Your task to perform on an android device: toggle javascript in the chrome app Image 0: 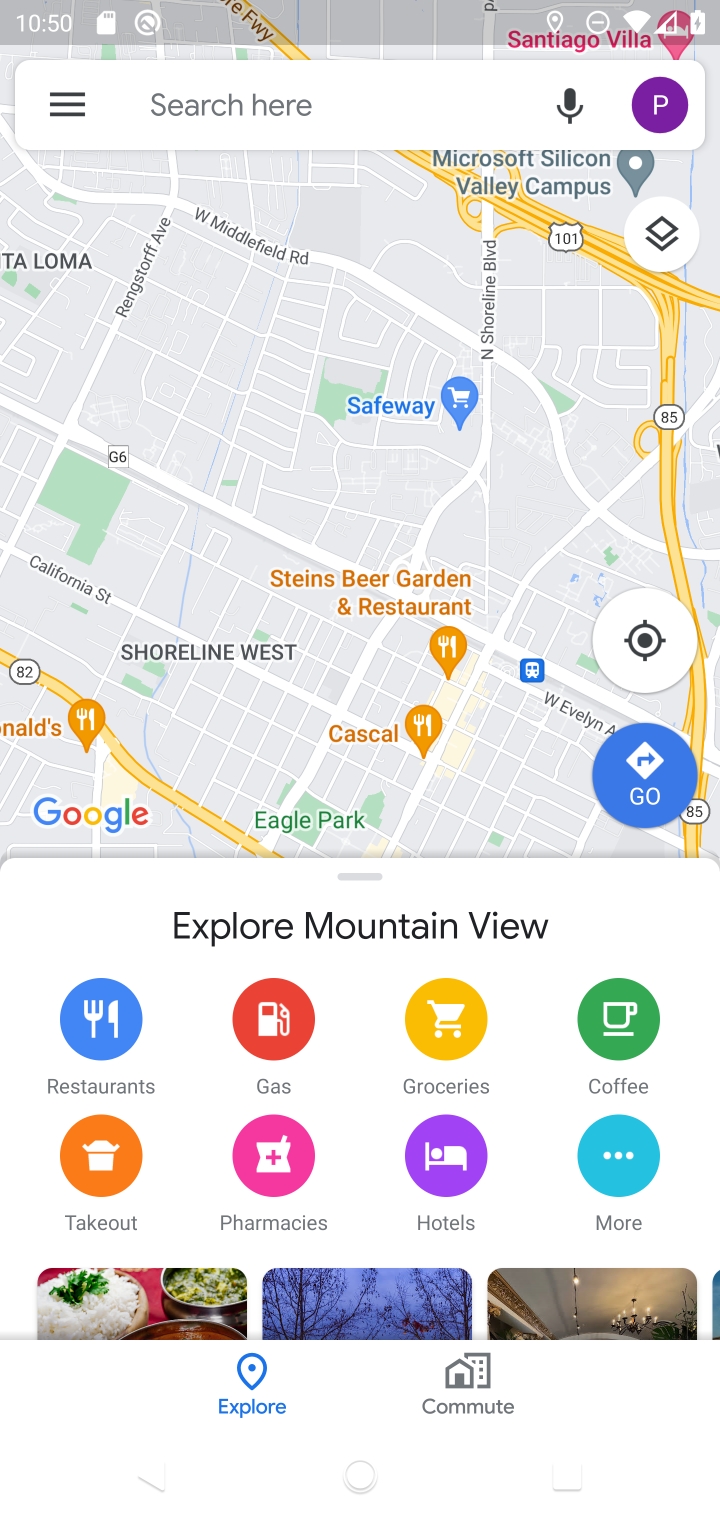
Step 0: press home button
Your task to perform on an android device: toggle javascript in the chrome app Image 1: 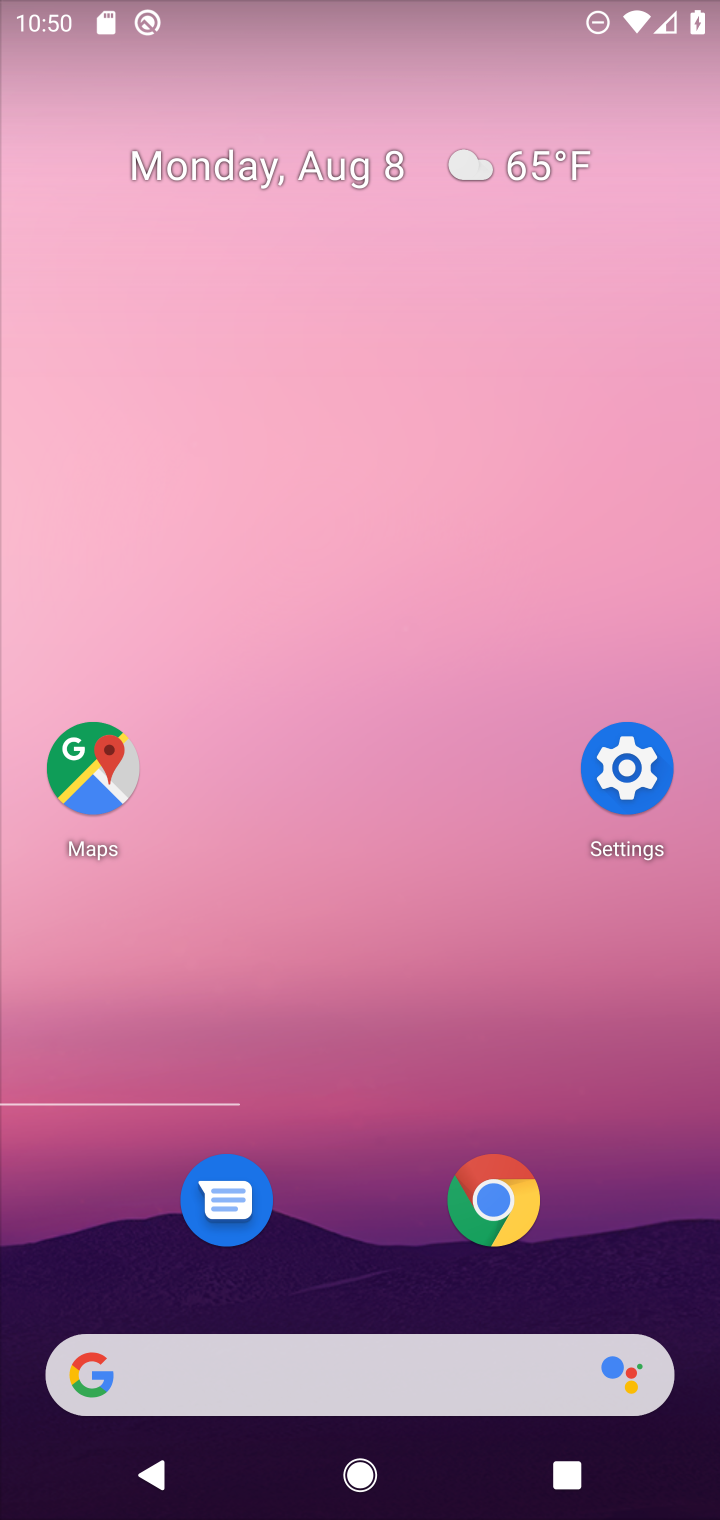
Step 1: click (494, 1195)
Your task to perform on an android device: toggle javascript in the chrome app Image 2: 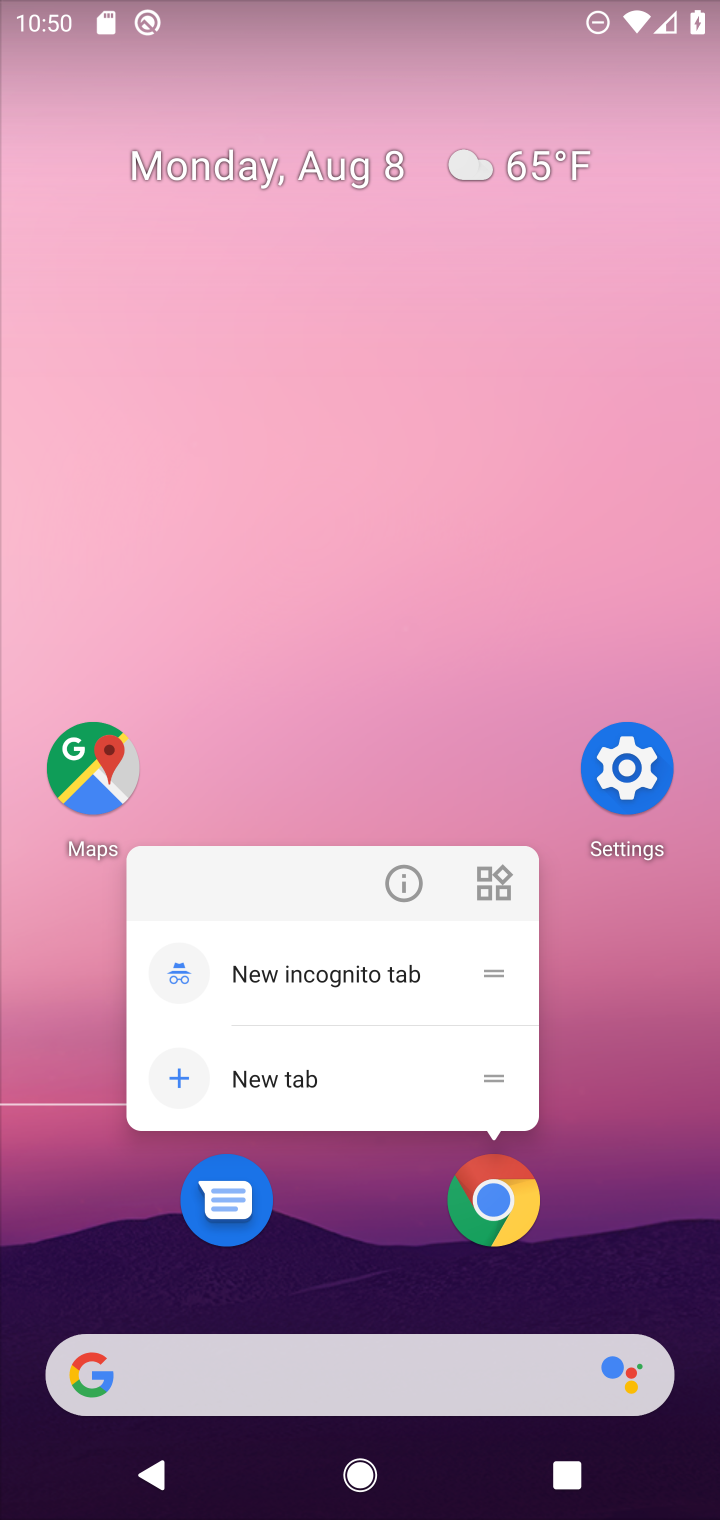
Step 2: click (494, 1207)
Your task to perform on an android device: toggle javascript in the chrome app Image 3: 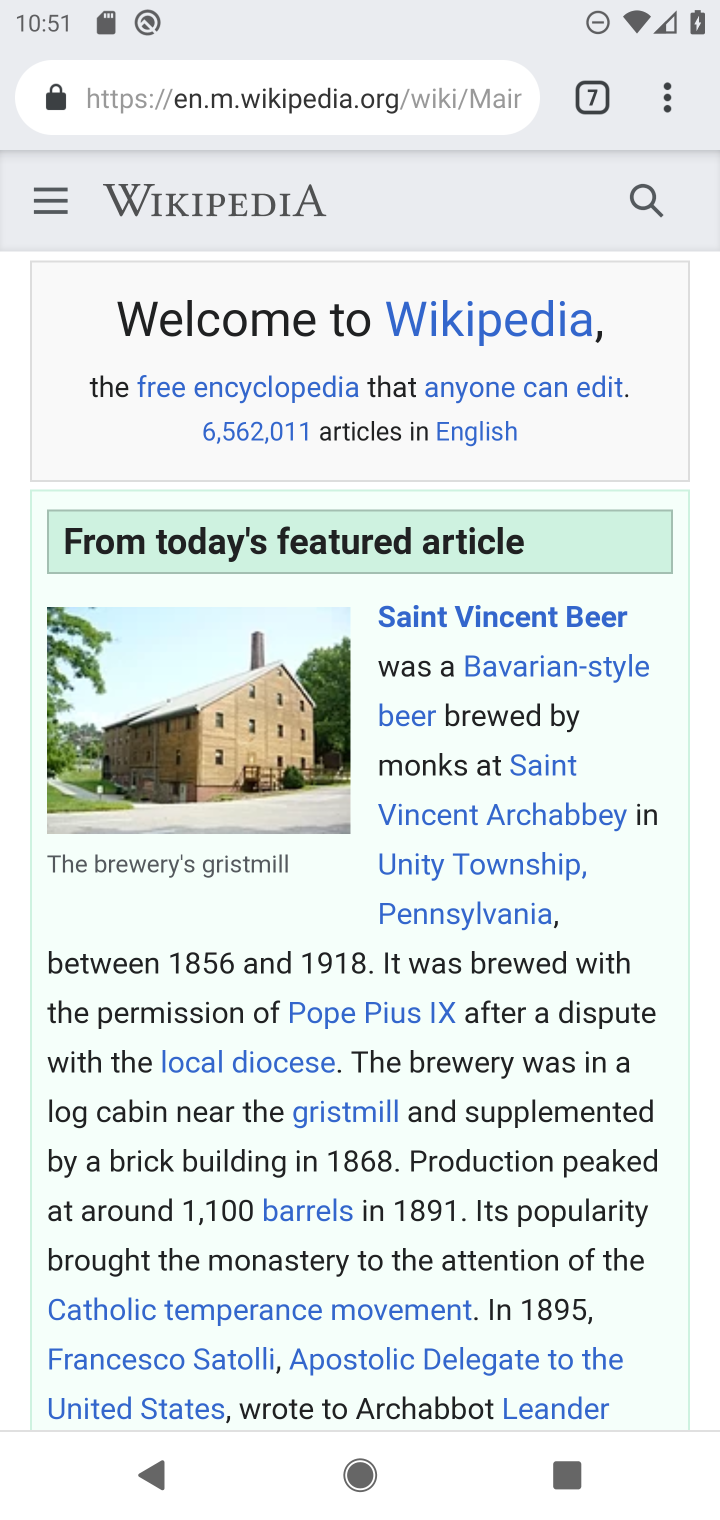
Step 3: drag from (667, 100) to (342, 1275)
Your task to perform on an android device: toggle javascript in the chrome app Image 4: 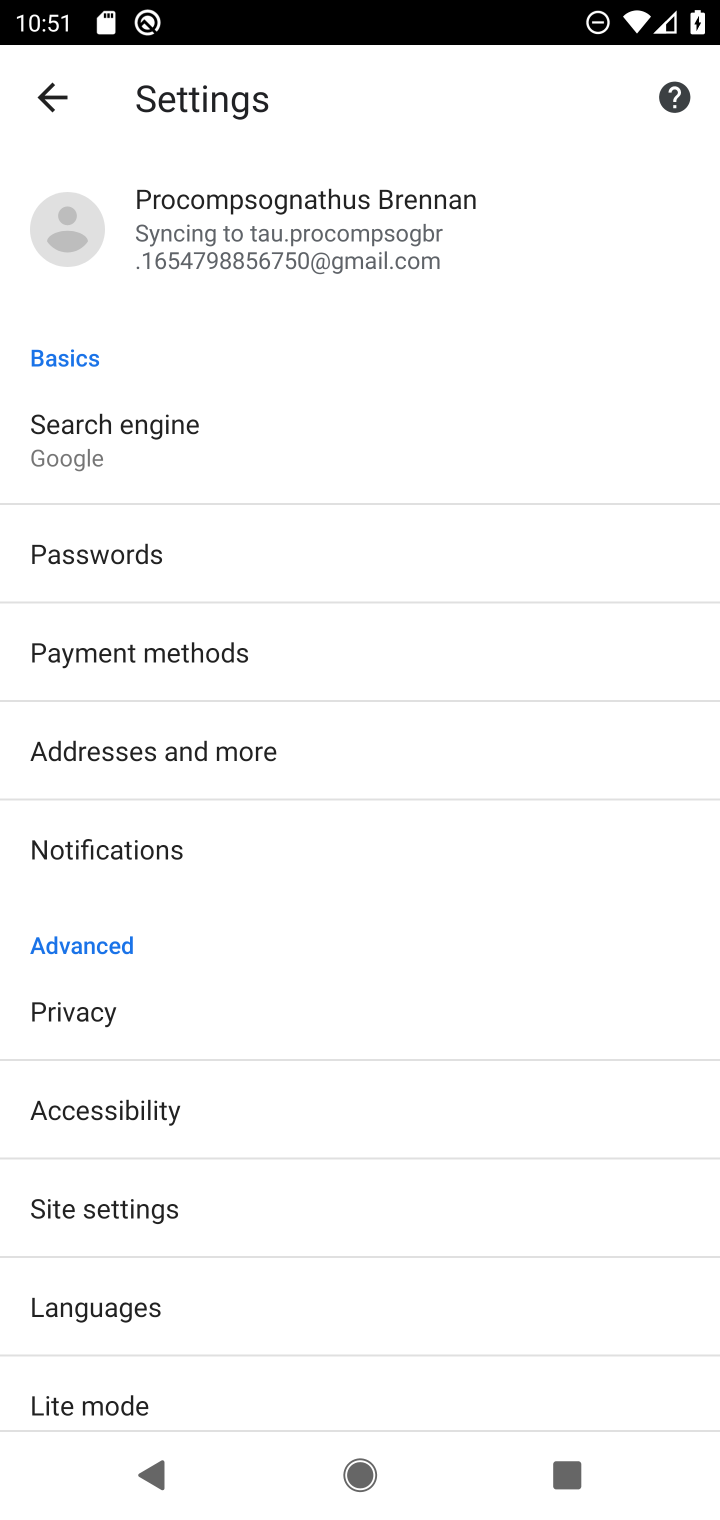
Step 4: click (122, 1209)
Your task to perform on an android device: toggle javascript in the chrome app Image 5: 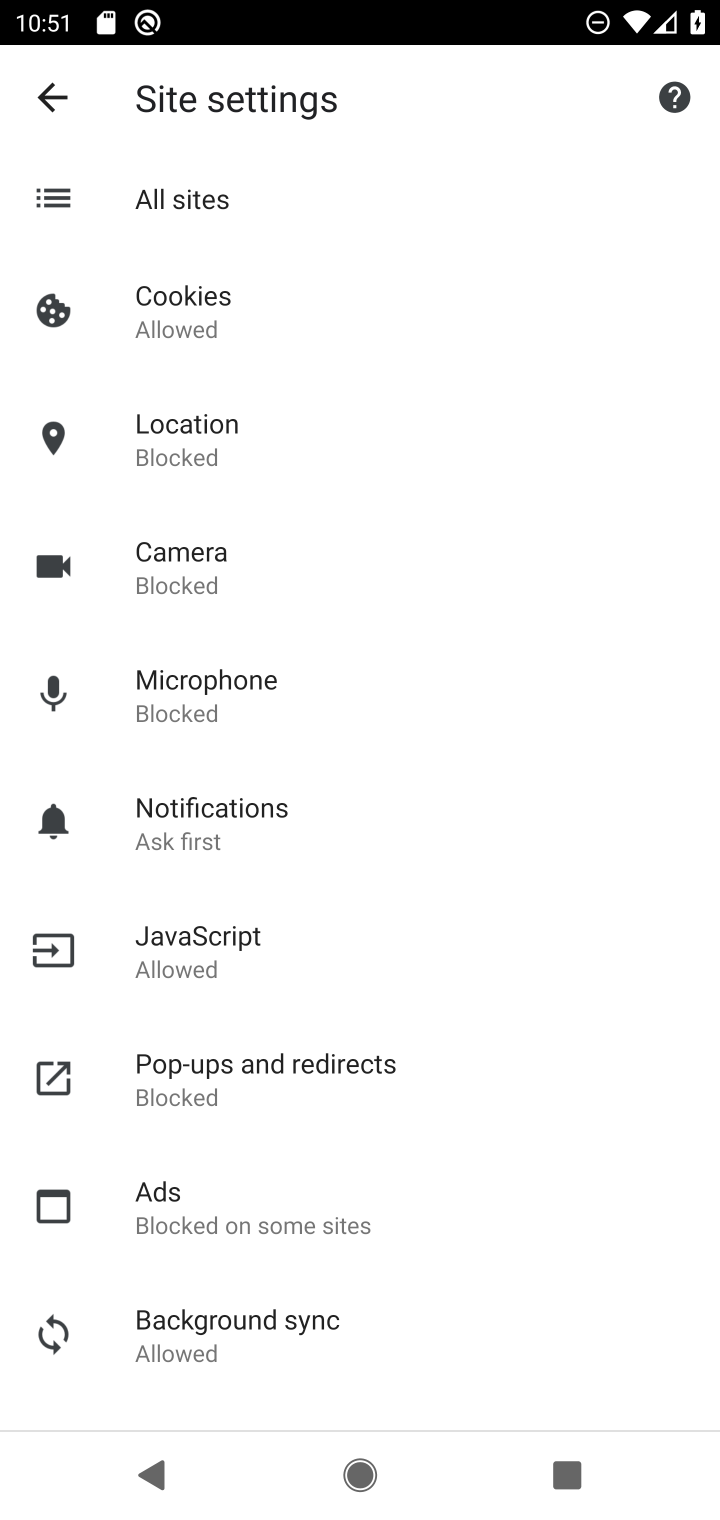
Step 5: click (205, 948)
Your task to perform on an android device: toggle javascript in the chrome app Image 6: 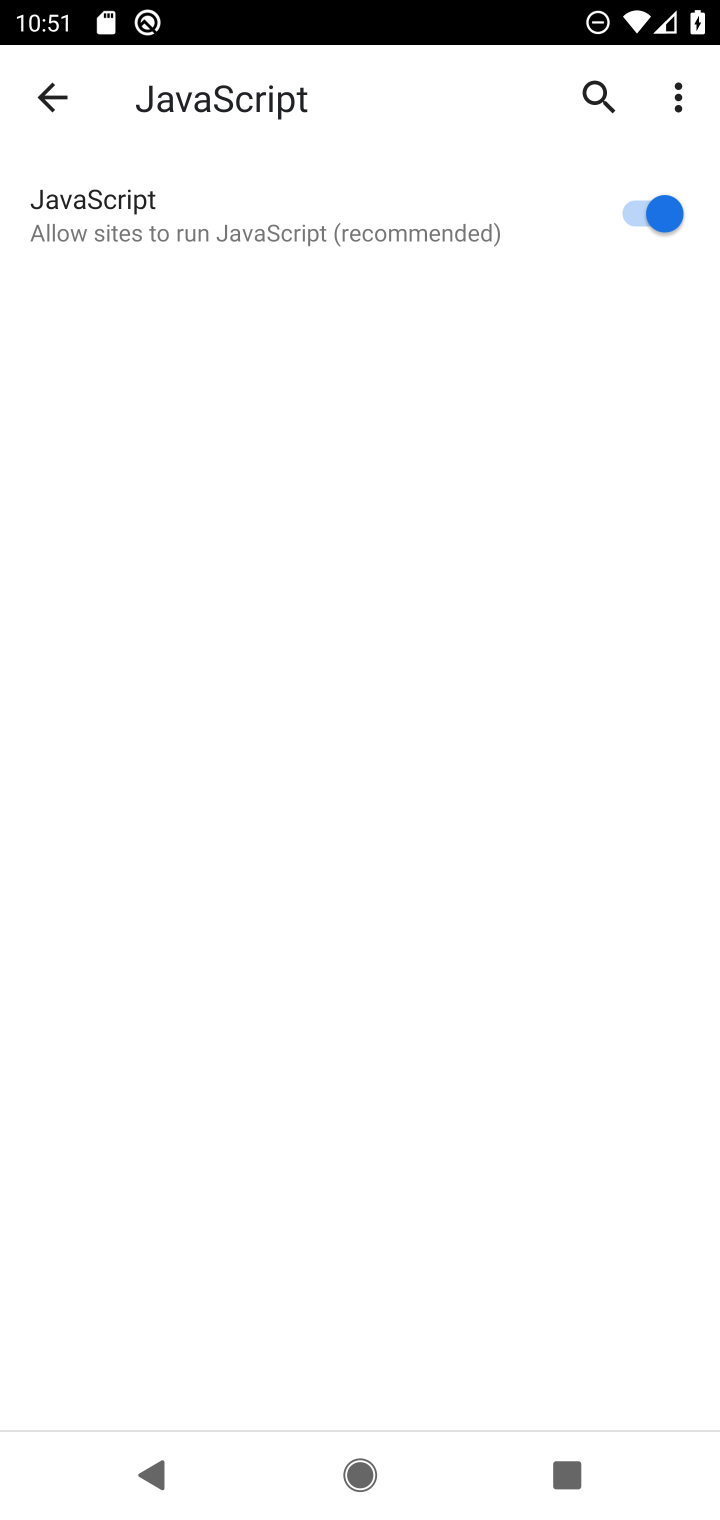
Step 6: click (627, 224)
Your task to perform on an android device: toggle javascript in the chrome app Image 7: 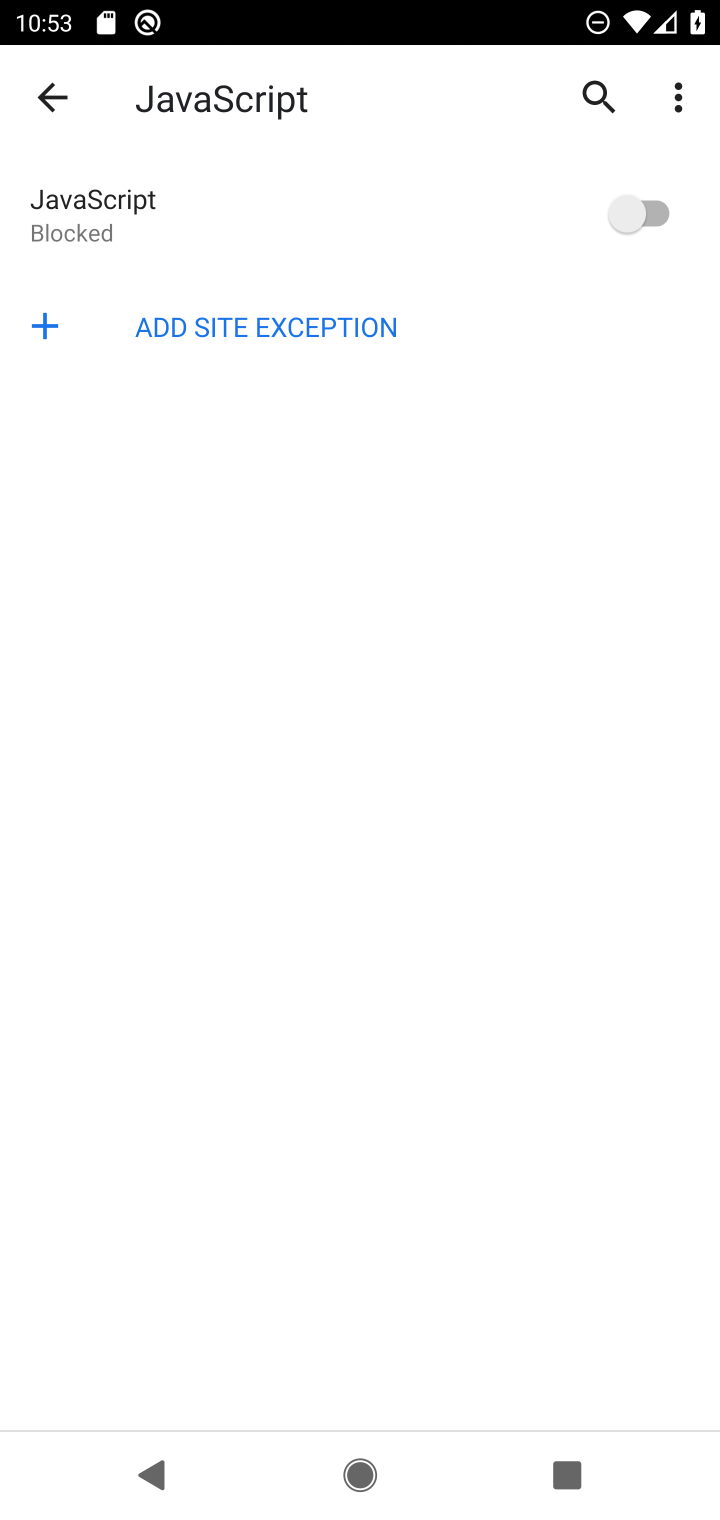
Step 7: task complete